Your task to perform on an android device: star an email in the gmail app Image 0: 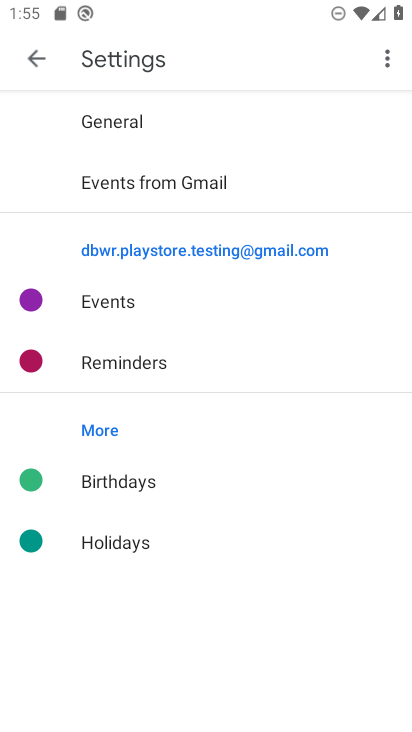
Step 0: press home button
Your task to perform on an android device: star an email in the gmail app Image 1: 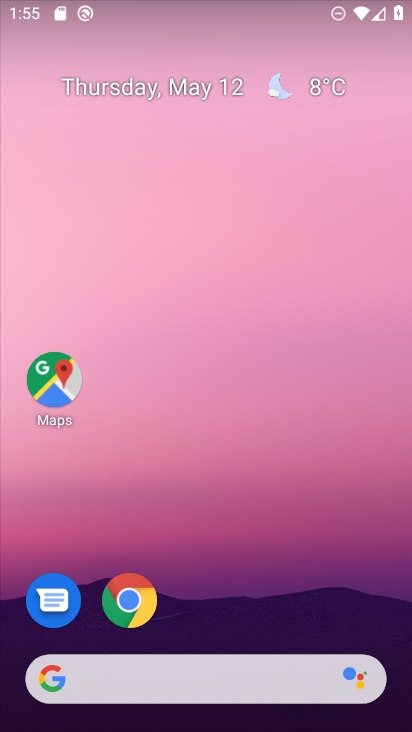
Step 1: drag from (220, 724) to (223, 114)
Your task to perform on an android device: star an email in the gmail app Image 2: 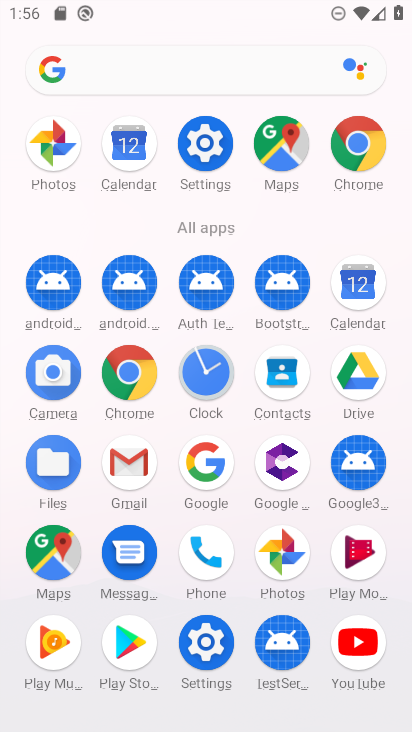
Step 2: click (126, 457)
Your task to perform on an android device: star an email in the gmail app Image 3: 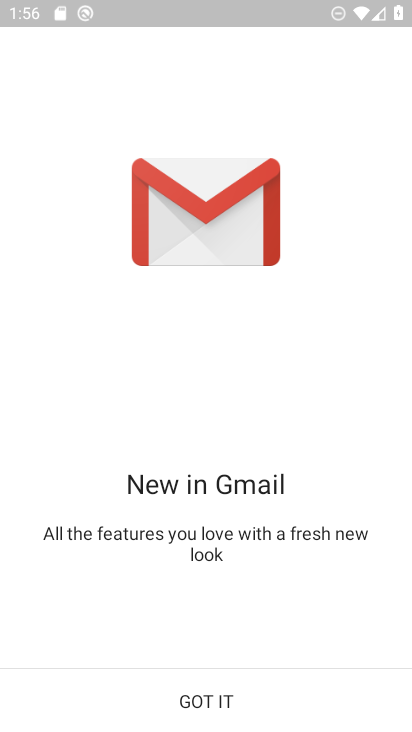
Step 3: click (198, 697)
Your task to perform on an android device: star an email in the gmail app Image 4: 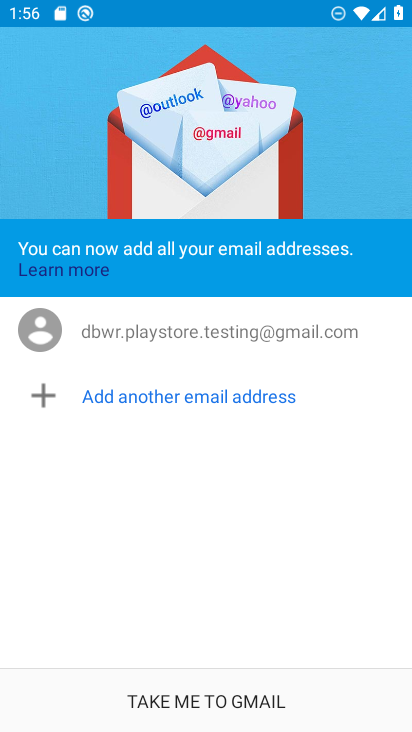
Step 4: click (191, 692)
Your task to perform on an android device: star an email in the gmail app Image 5: 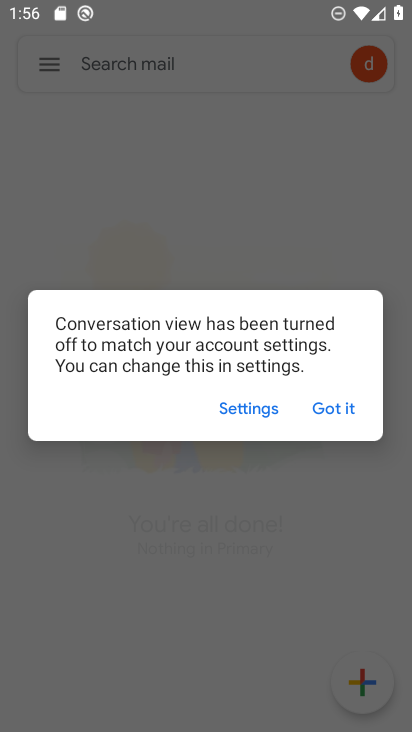
Step 5: click (331, 402)
Your task to perform on an android device: star an email in the gmail app Image 6: 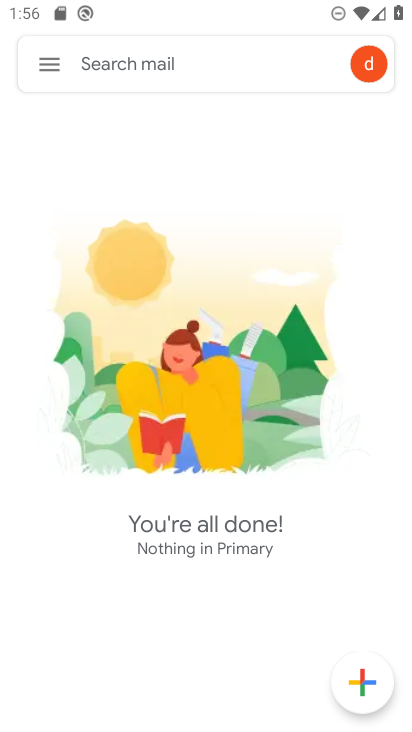
Step 6: task complete